Your task to perform on an android device: set the stopwatch Image 0: 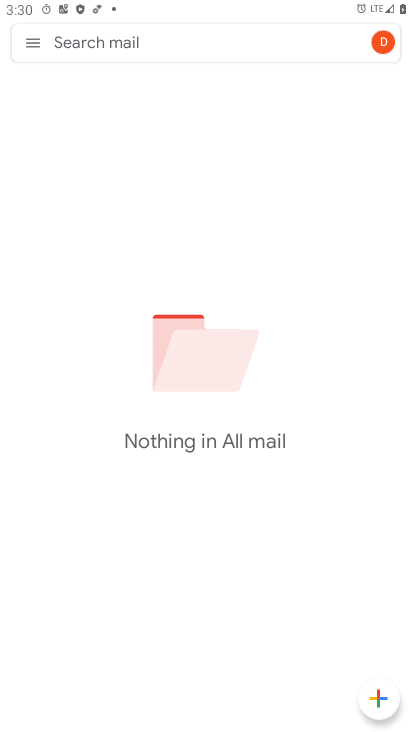
Step 0: press home button
Your task to perform on an android device: set the stopwatch Image 1: 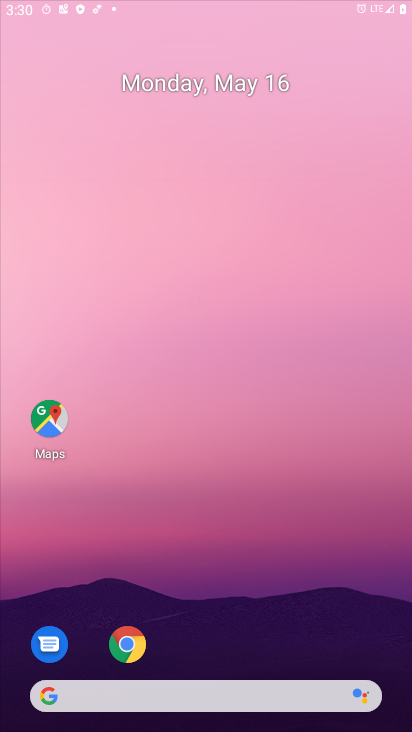
Step 1: drag from (221, 553) to (242, 191)
Your task to perform on an android device: set the stopwatch Image 2: 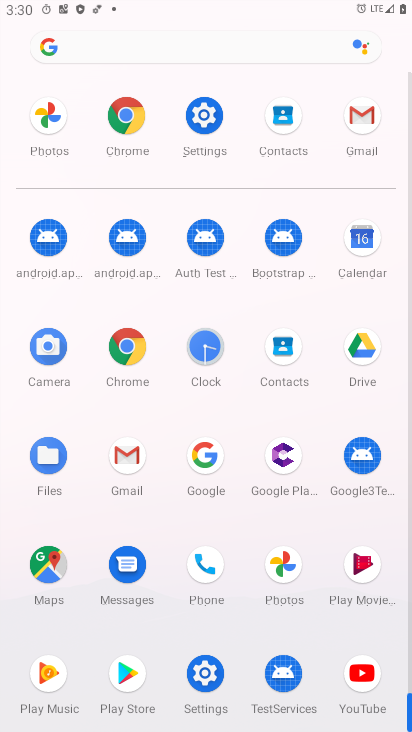
Step 2: click (209, 348)
Your task to perform on an android device: set the stopwatch Image 3: 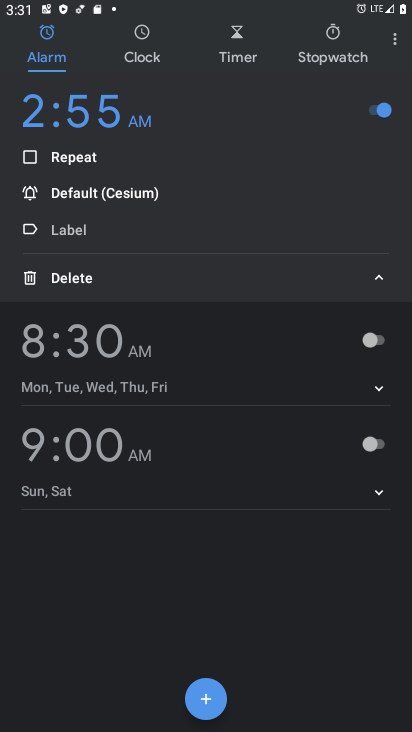
Step 3: click (314, 54)
Your task to perform on an android device: set the stopwatch Image 4: 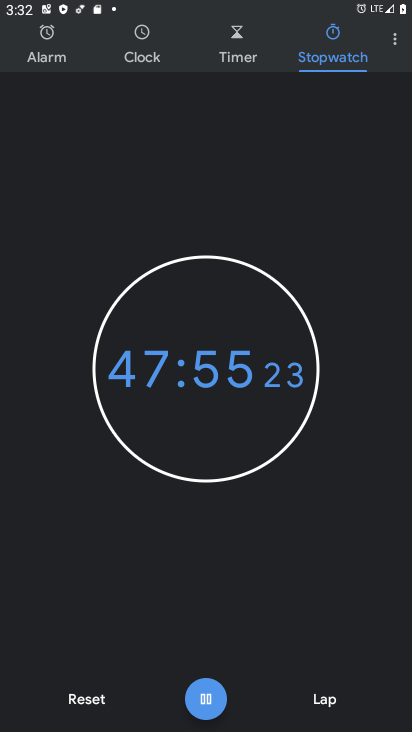
Step 4: task complete